Your task to perform on an android device: Go to network settings Image 0: 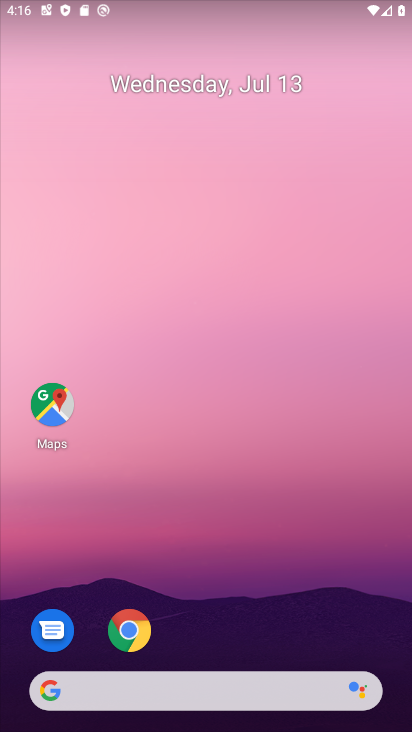
Step 0: drag from (202, 614) to (383, 8)
Your task to perform on an android device: Go to network settings Image 1: 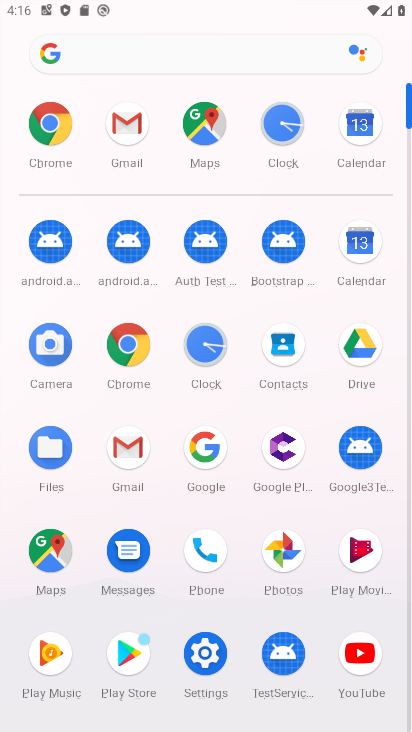
Step 1: click (205, 661)
Your task to perform on an android device: Go to network settings Image 2: 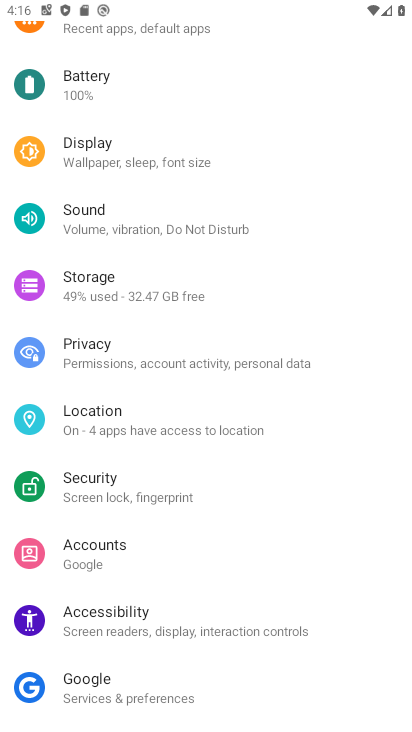
Step 2: drag from (194, 156) to (158, 728)
Your task to perform on an android device: Go to network settings Image 3: 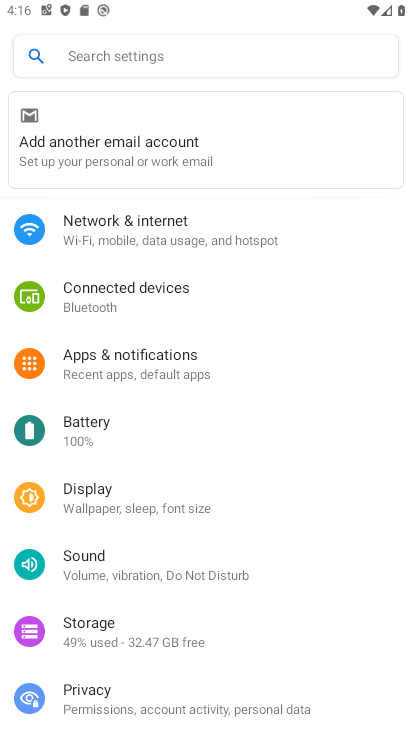
Step 3: click (144, 227)
Your task to perform on an android device: Go to network settings Image 4: 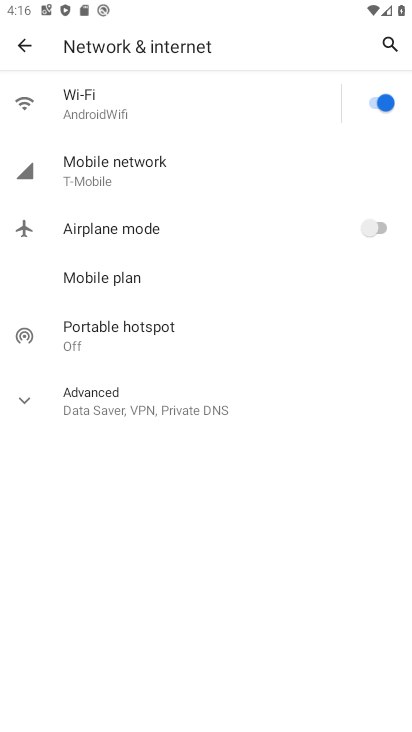
Step 4: task complete